Your task to perform on an android device: Go to wifi settings Image 0: 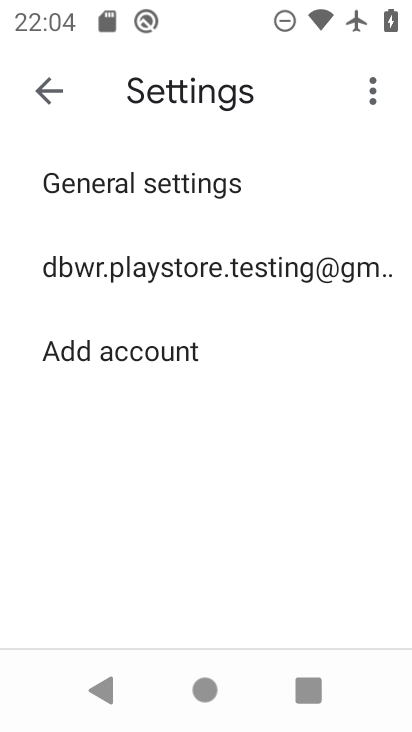
Step 0: press home button
Your task to perform on an android device: Go to wifi settings Image 1: 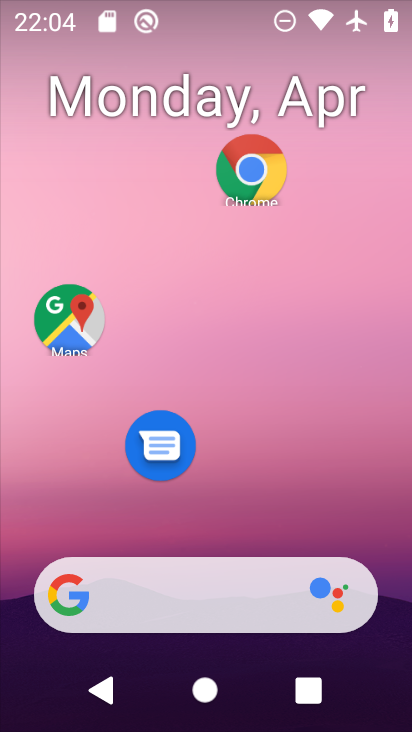
Step 1: drag from (236, 500) to (236, 73)
Your task to perform on an android device: Go to wifi settings Image 2: 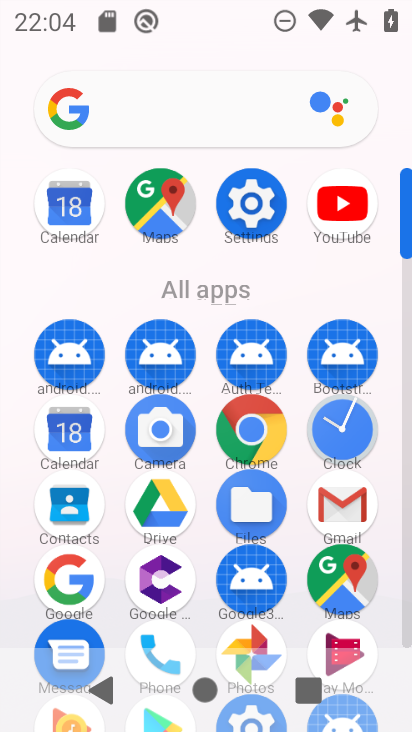
Step 2: click (256, 192)
Your task to perform on an android device: Go to wifi settings Image 3: 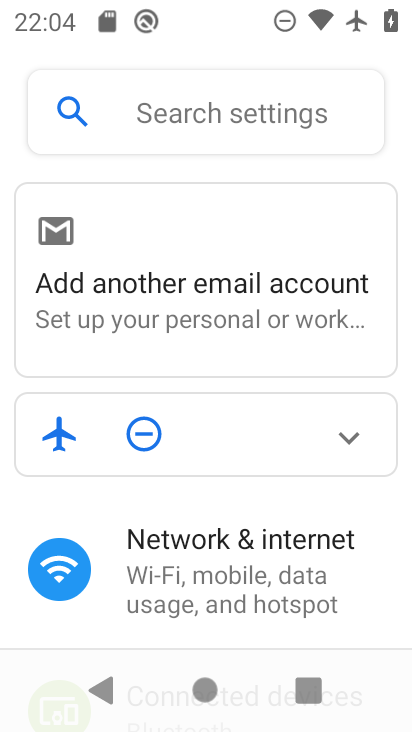
Step 3: drag from (197, 507) to (197, 213)
Your task to perform on an android device: Go to wifi settings Image 4: 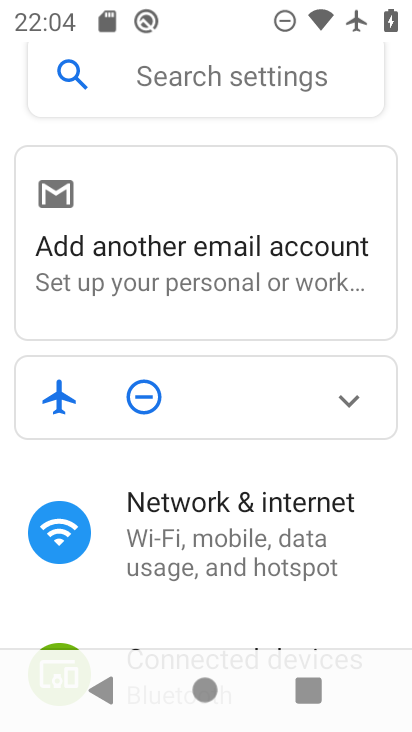
Step 4: click (251, 491)
Your task to perform on an android device: Go to wifi settings Image 5: 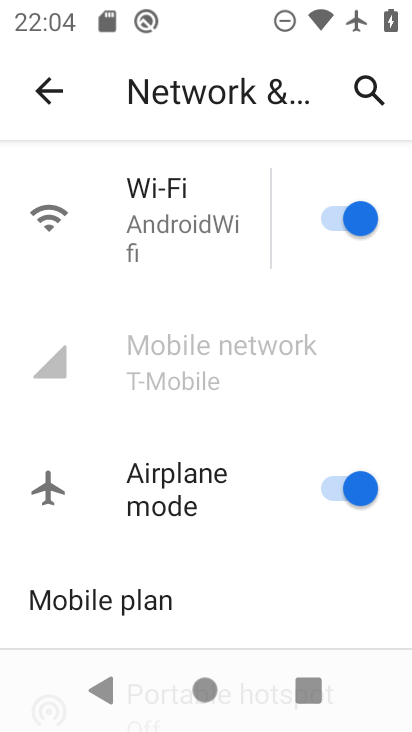
Step 5: click (179, 234)
Your task to perform on an android device: Go to wifi settings Image 6: 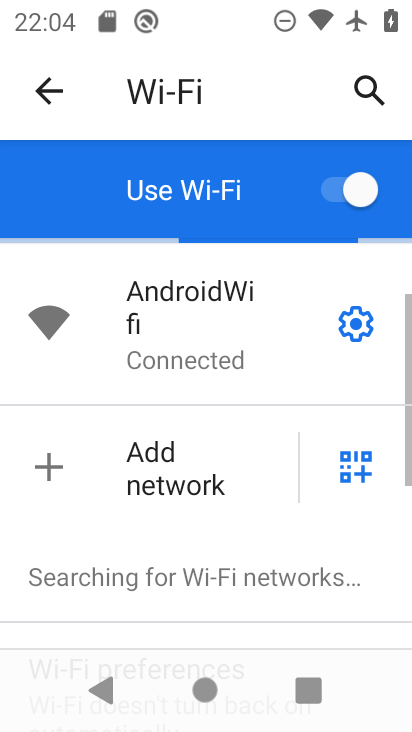
Step 6: task complete